Your task to perform on an android device: turn notification dots off Image 0: 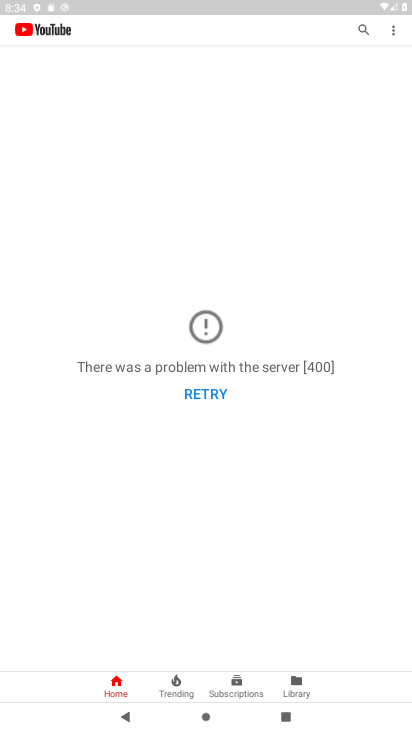
Step 0: press home button
Your task to perform on an android device: turn notification dots off Image 1: 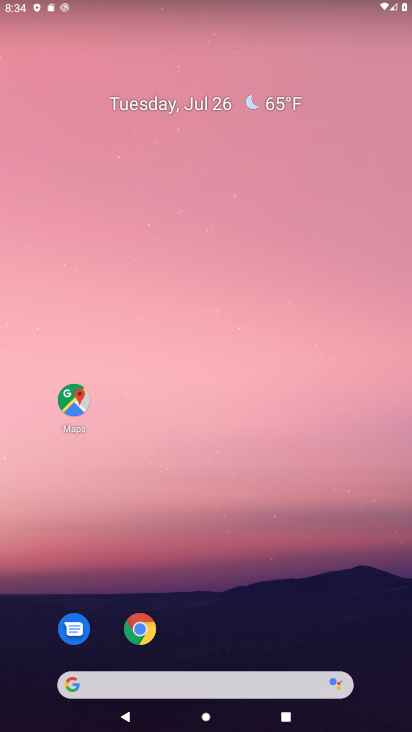
Step 1: drag from (268, 638) to (262, 180)
Your task to perform on an android device: turn notification dots off Image 2: 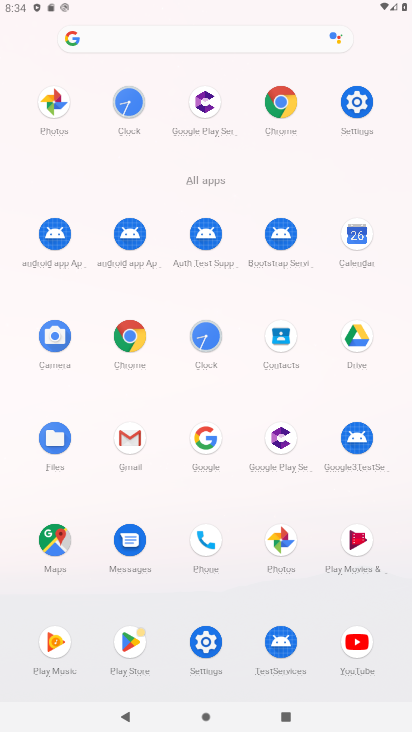
Step 2: click (351, 95)
Your task to perform on an android device: turn notification dots off Image 3: 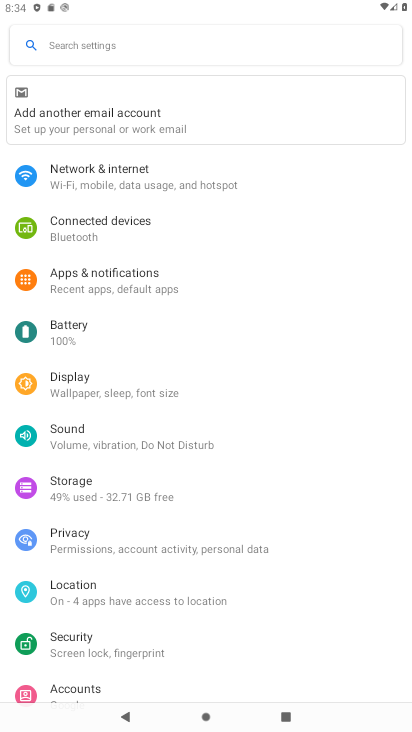
Step 3: click (92, 270)
Your task to perform on an android device: turn notification dots off Image 4: 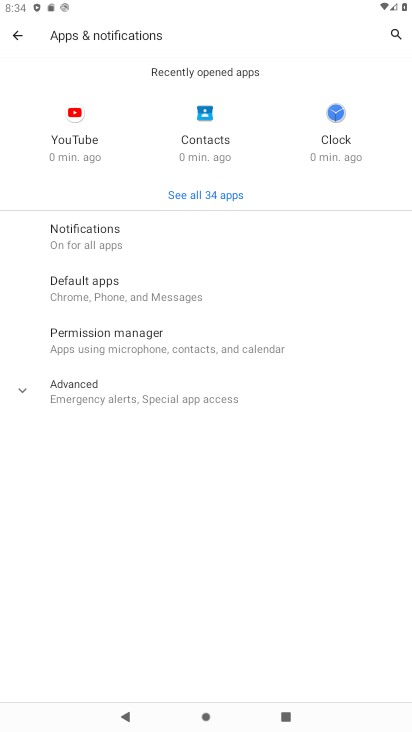
Step 4: click (92, 224)
Your task to perform on an android device: turn notification dots off Image 5: 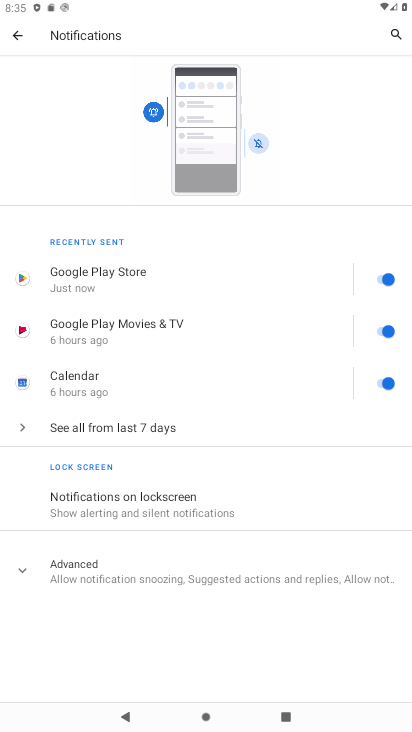
Step 5: click (81, 570)
Your task to perform on an android device: turn notification dots off Image 6: 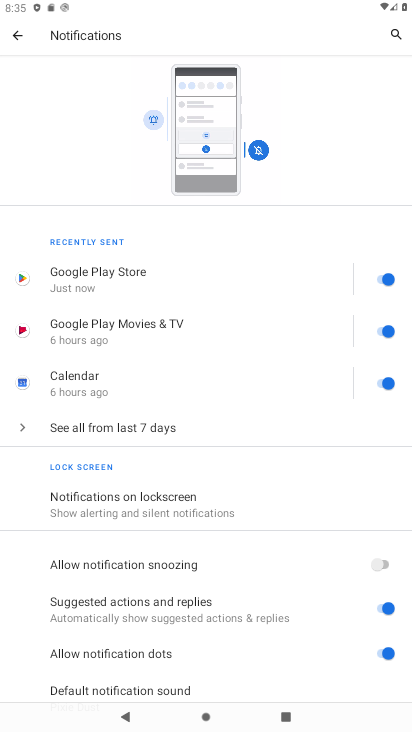
Step 6: click (383, 652)
Your task to perform on an android device: turn notification dots off Image 7: 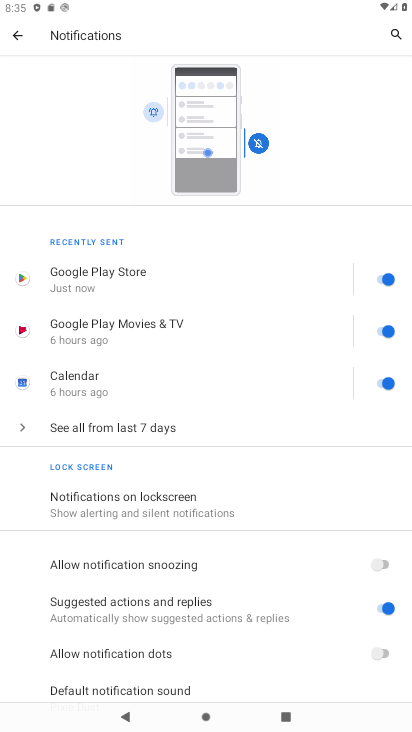
Step 7: task complete